Your task to perform on an android device: open app "Spotify: Music and Podcasts" (install if not already installed) Image 0: 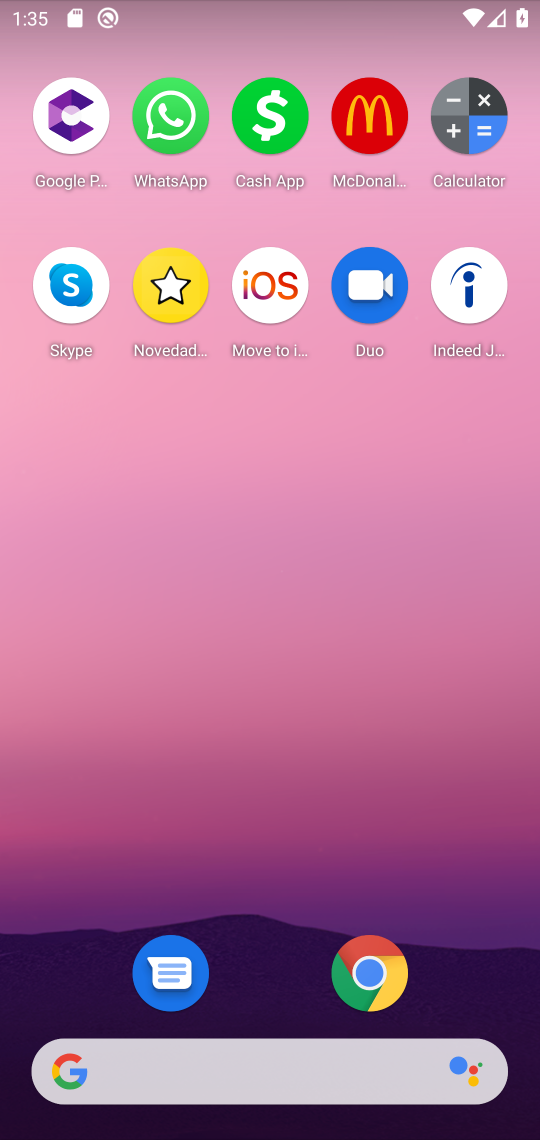
Step 0: drag from (314, 1035) to (259, 149)
Your task to perform on an android device: open app "Spotify: Music and Podcasts" (install if not already installed) Image 1: 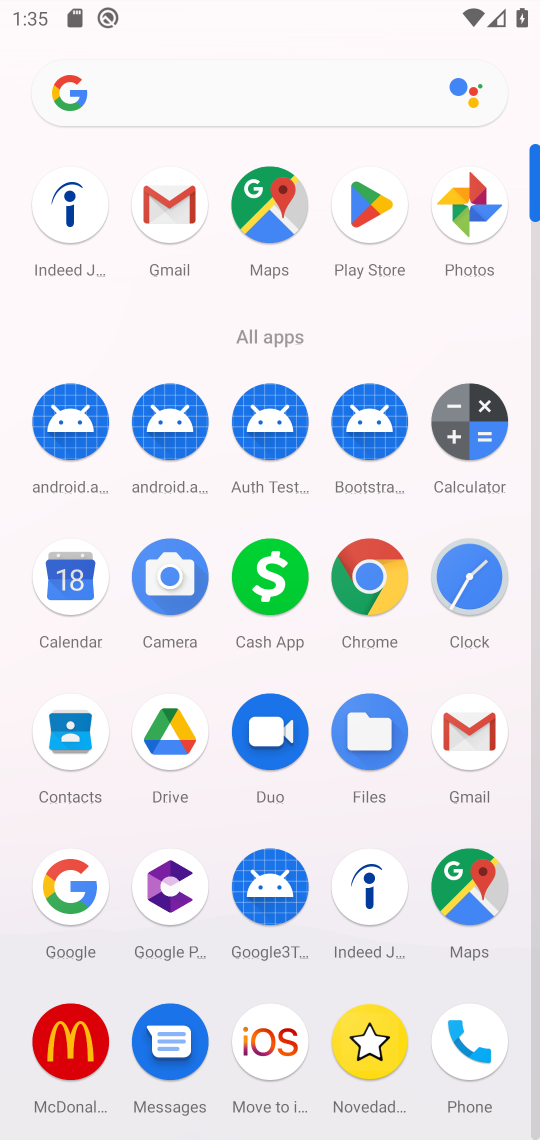
Step 1: click (346, 244)
Your task to perform on an android device: open app "Spotify: Music and Podcasts" (install if not already installed) Image 2: 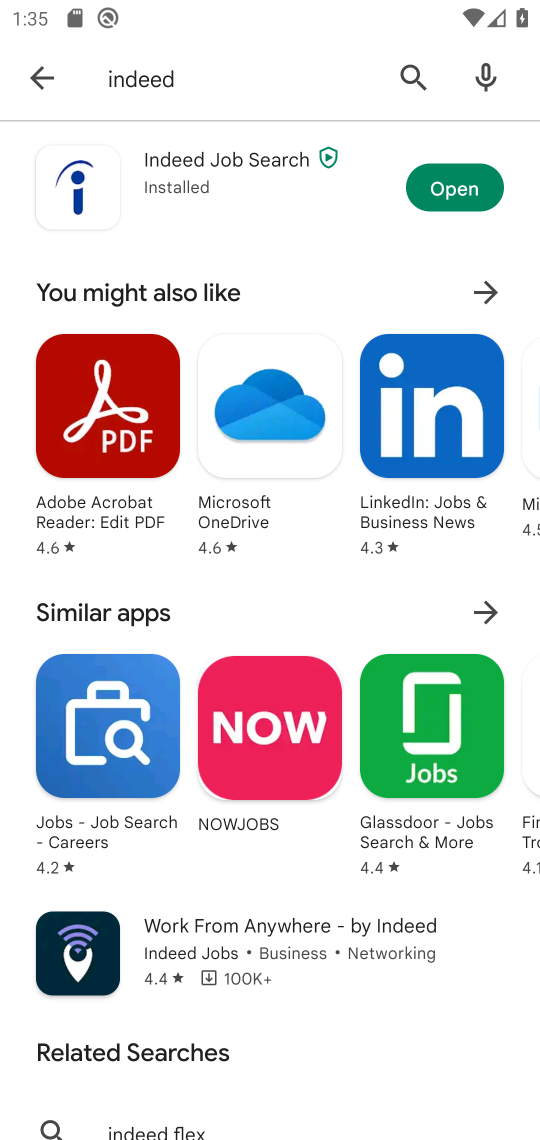
Step 2: click (430, 71)
Your task to perform on an android device: open app "Spotify: Music and Podcasts" (install if not already installed) Image 3: 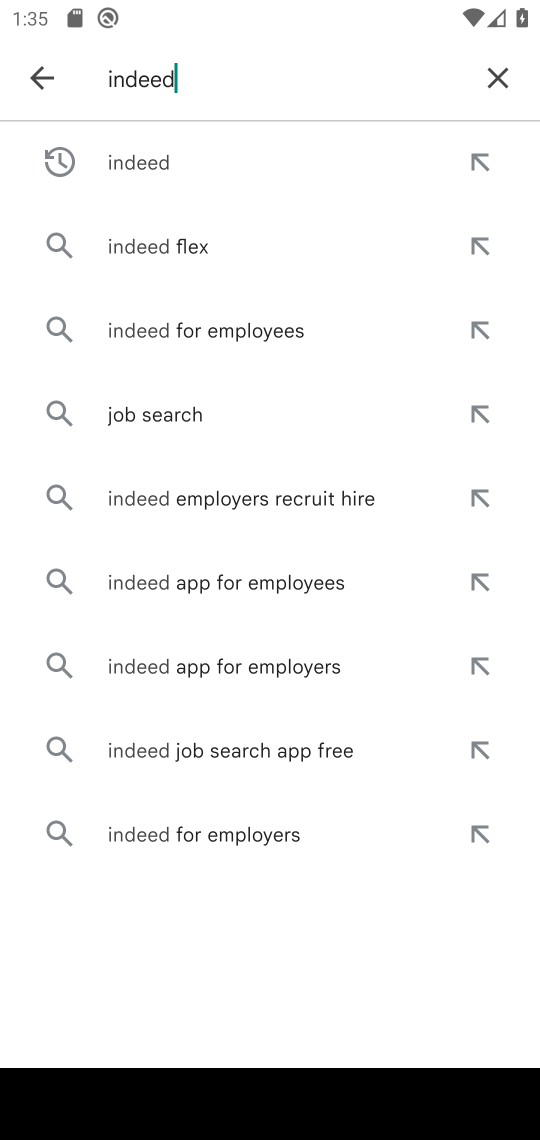
Step 3: click (498, 72)
Your task to perform on an android device: open app "Spotify: Music and Podcasts" (install if not already installed) Image 4: 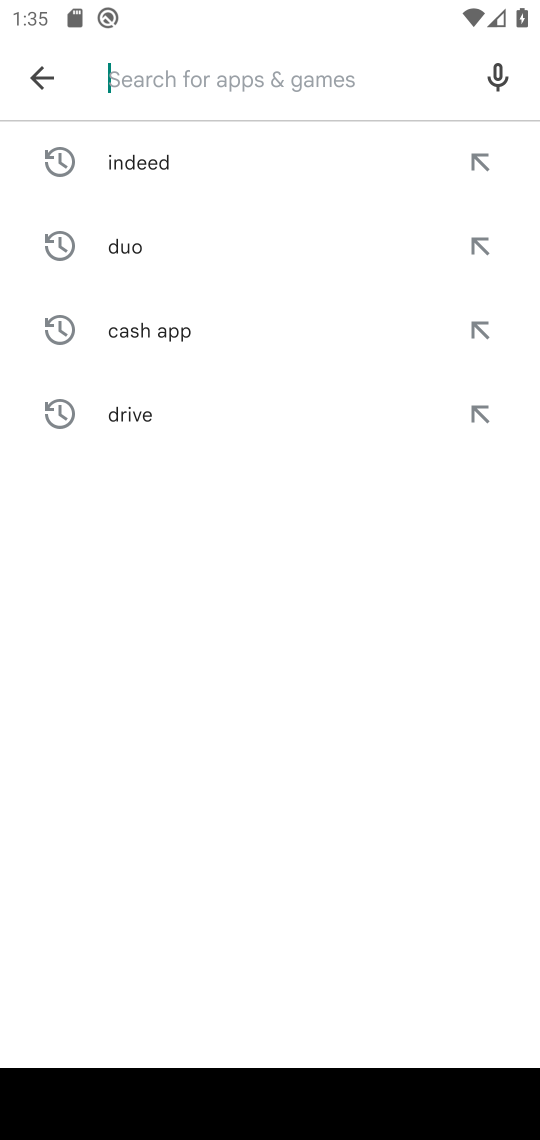
Step 4: type "spotify"
Your task to perform on an android device: open app "Spotify: Music and Podcasts" (install if not already installed) Image 5: 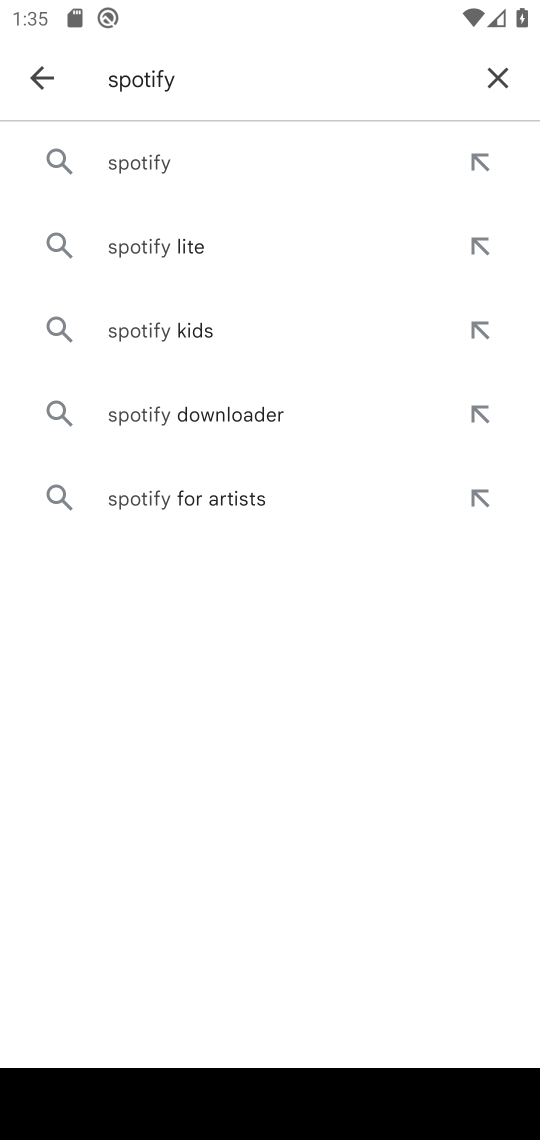
Step 5: click (279, 168)
Your task to perform on an android device: open app "Spotify: Music and Podcasts" (install if not already installed) Image 6: 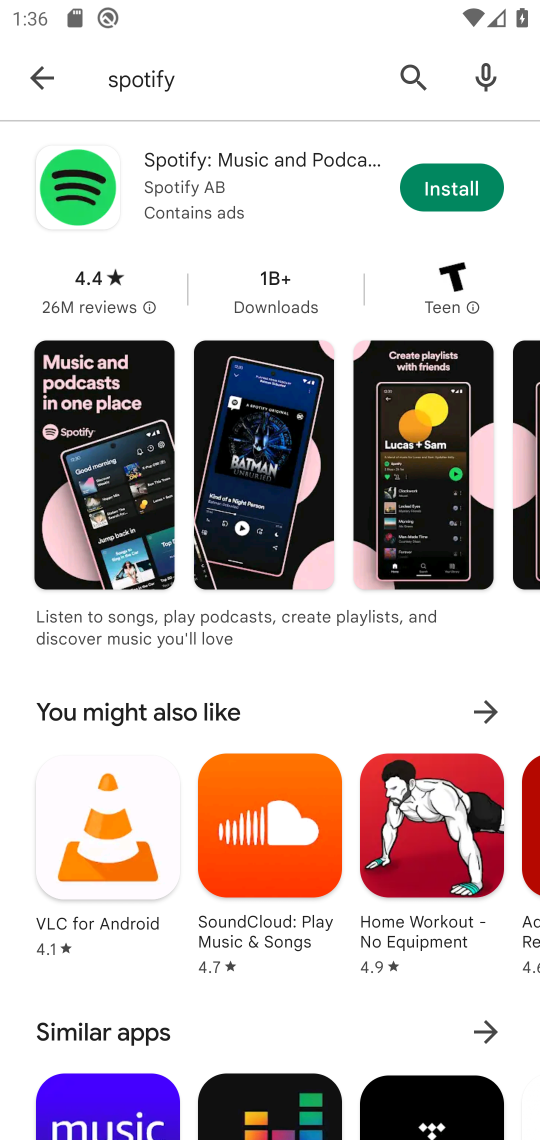
Step 6: click (450, 186)
Your task to perform on an android device: open app "Spotify: Music and Podcasts" (install if not already installed) Image 7: 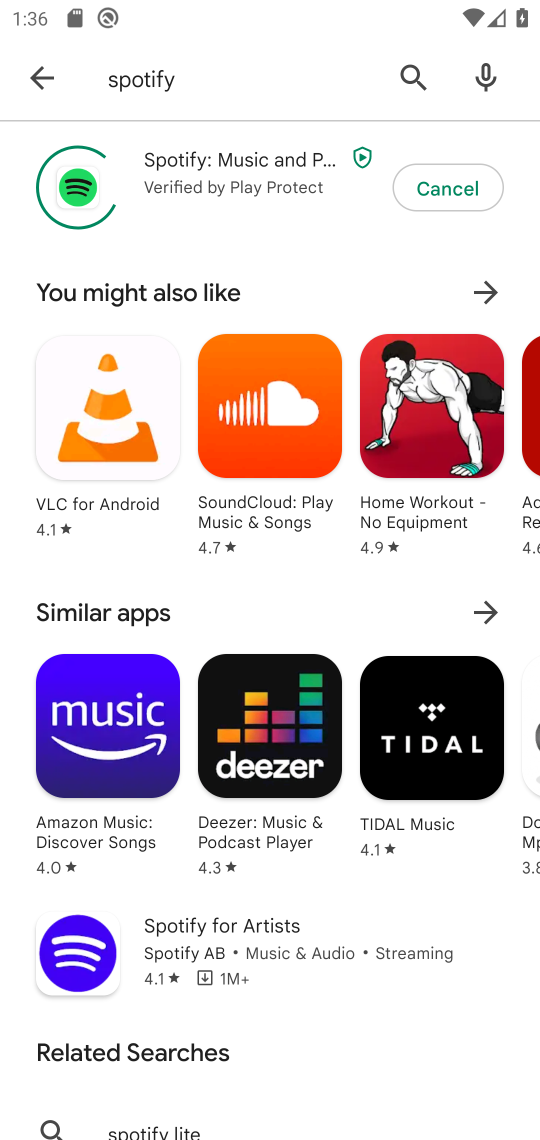
Step 7: task complete